Your task to perform on an android device: open chrome and create a bookmark for the current page Image 0: 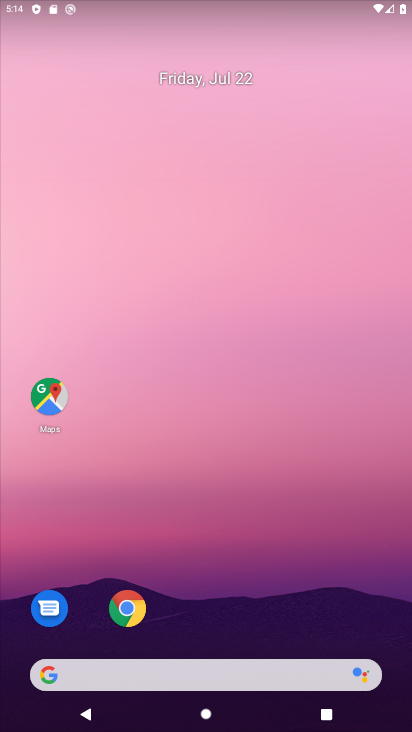
Step 0: click (118, 603)
Your task to perform on an android device: open chrome and create a bookmark for the current page Image 1: 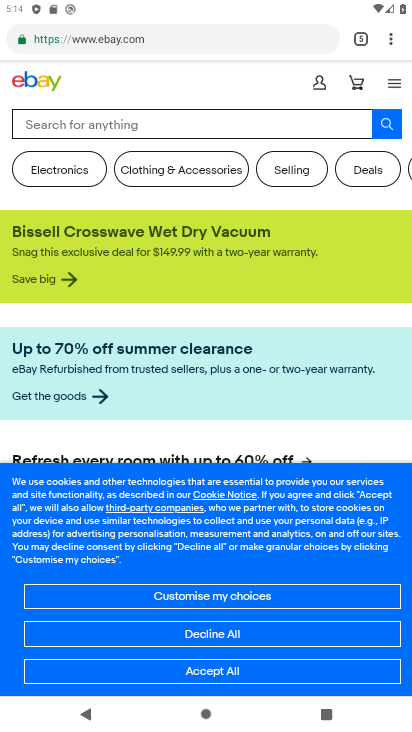
Step 1: click (392, 48)
Your task to perform on an android device: open chrome and create a bookmark for the current page Image 2: 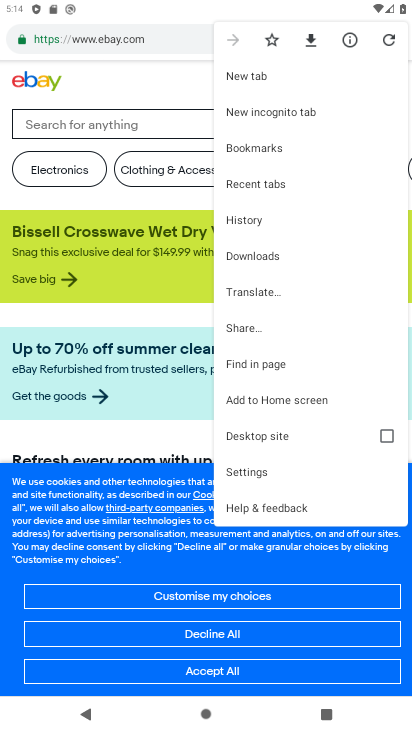
Step 2: click (268, 47)
Your task to perform on an android device: open chrome and create a bookmark for the current page Image 3: 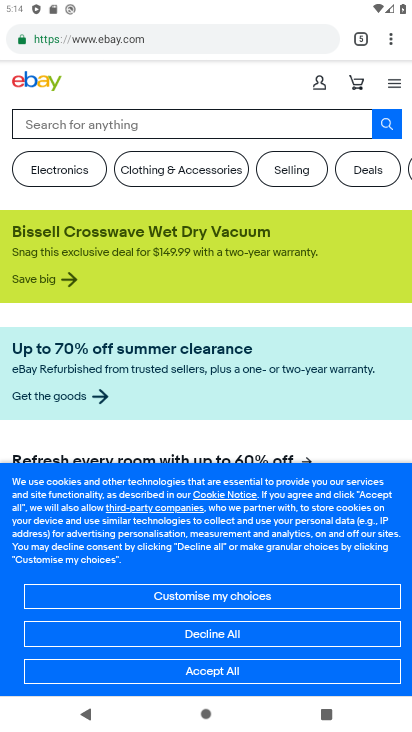
Step 3: task complete